Your task to perform on an android device: set the timer Image 0: 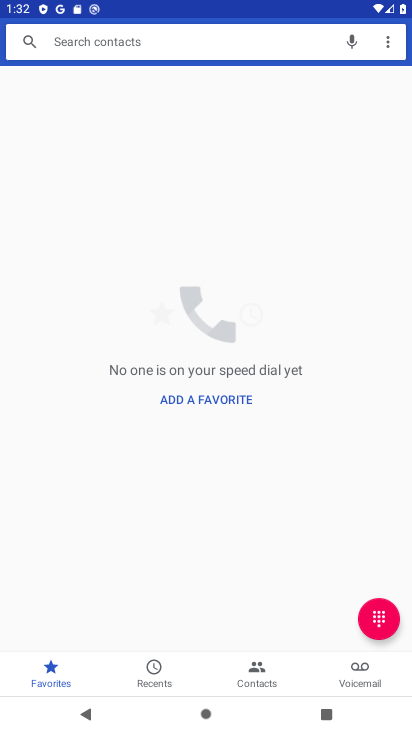
Step 0: press home button
Your task to perform on an android device: set the timer Image 1: 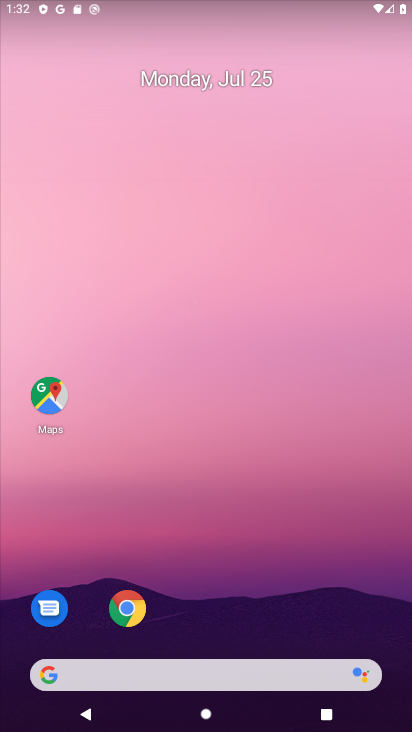
Step 1: drag from (206, 680) to (146, 223)
Your task to perform on an android device: set the timer Image 2: 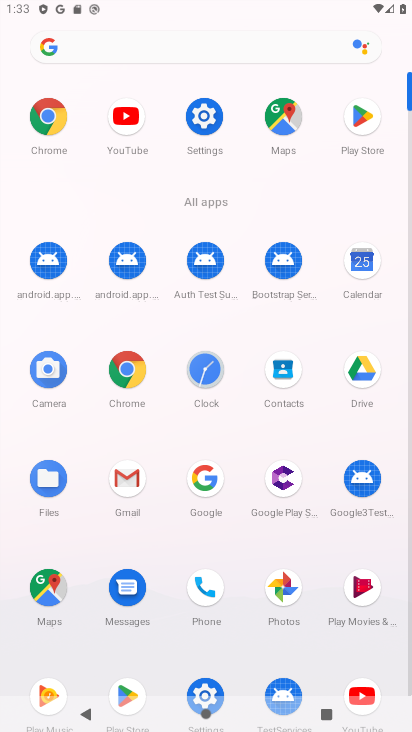
Step 2: click (206, 369)
Your task to perform on an android device: set the timer Image 3: 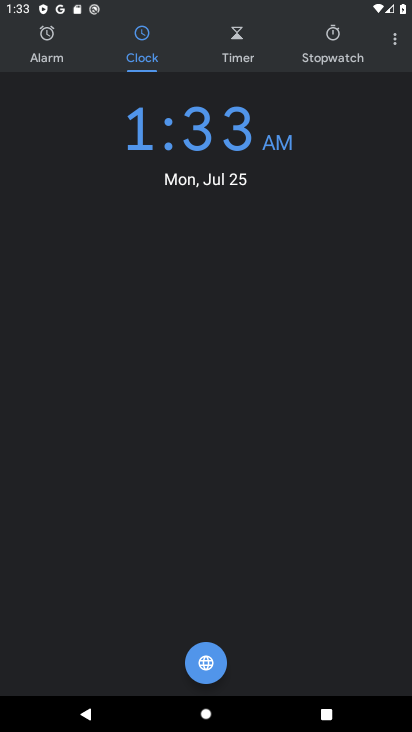
Step 3: click (238, 34)
Your task to perform on an android device: set the timer Image 4: 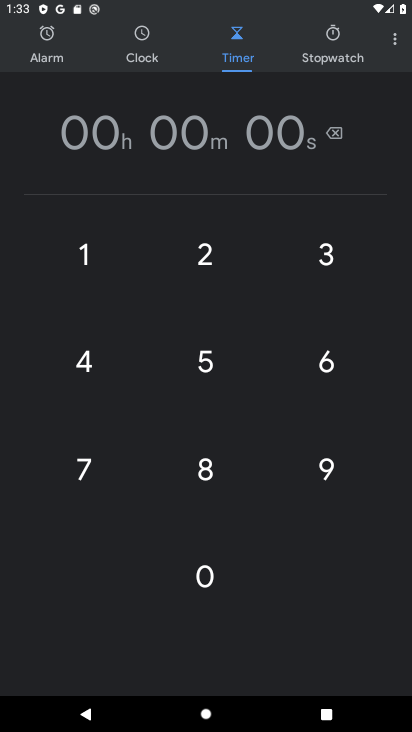
Step 4: type "1484"
Your task to perform on an android device: set the timer Image 5: 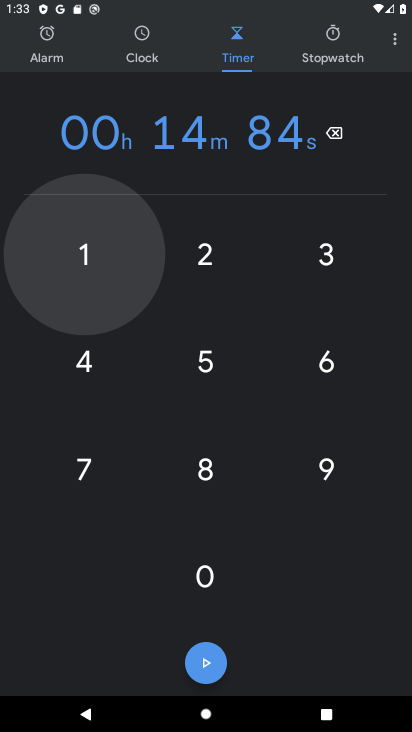
Step 5: click (204, 669)
Your task to perform on an android device: set the timer Image 6: 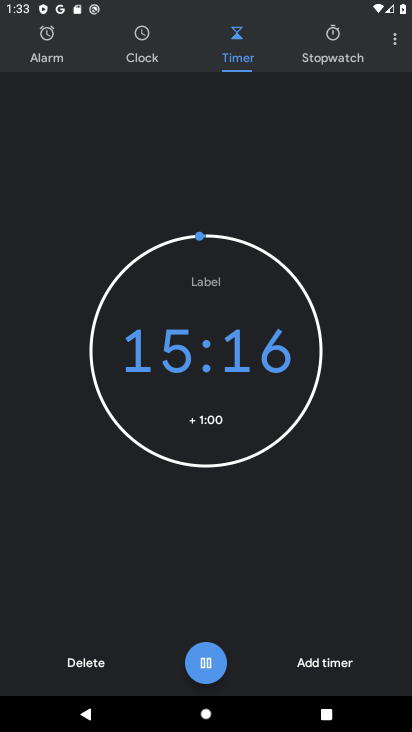
Step 6: click (204, 669)
Your task to perform on an android device: set the timer Image 7: 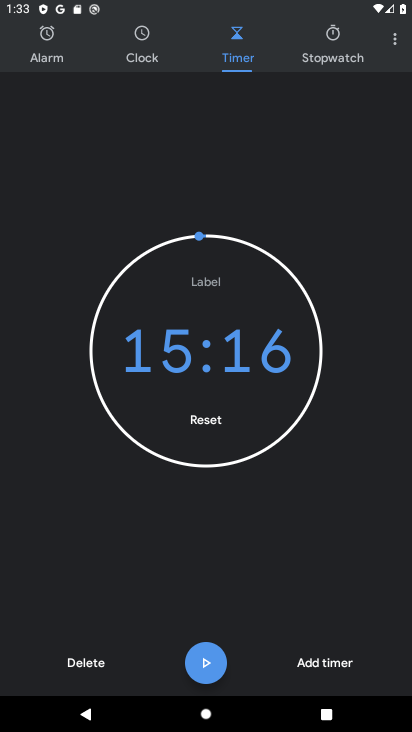
Step 7: task complete